Your task to perform on an android device: Search for pizza restaurants on Maps Image 0: 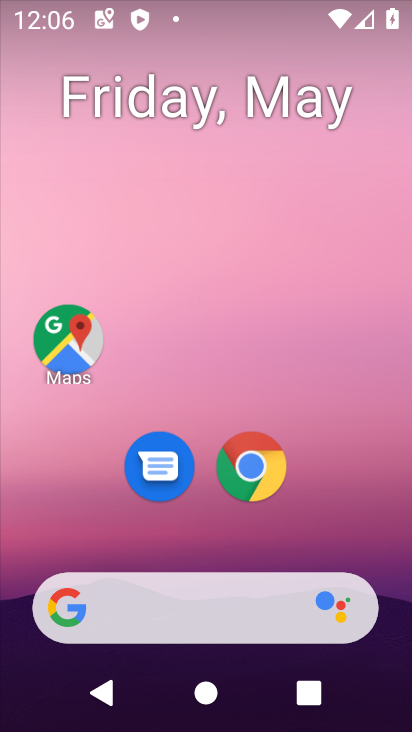
Step 0: drag from (388, 624) to (176, 32)
Your task to perform on an android device: Search for pizza restaurants on Maps Image 1: 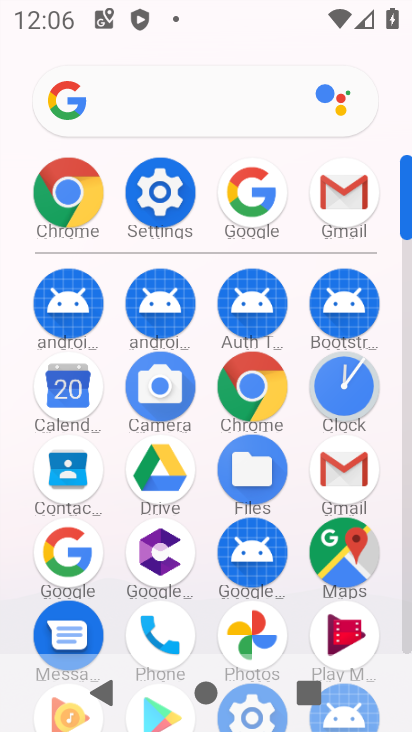
Step 1: click (348, 543)
Your task to perform on an android device: Search for pizza restaurants on Maps Image 2: 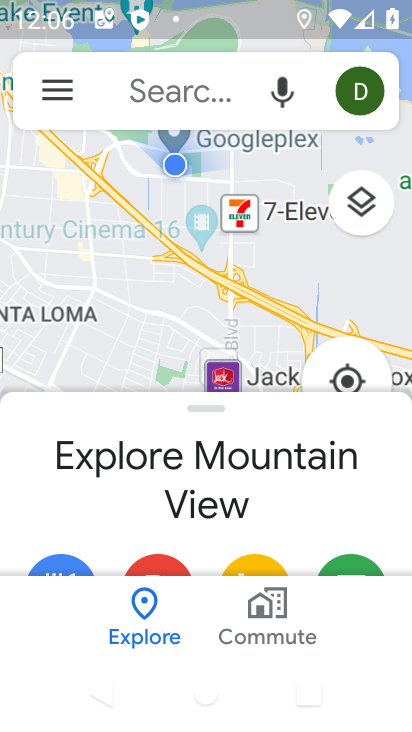
Step 2: click (168, 95)
Your task to perform on an android device: Search for pizza restaurants on Maps Image 3: 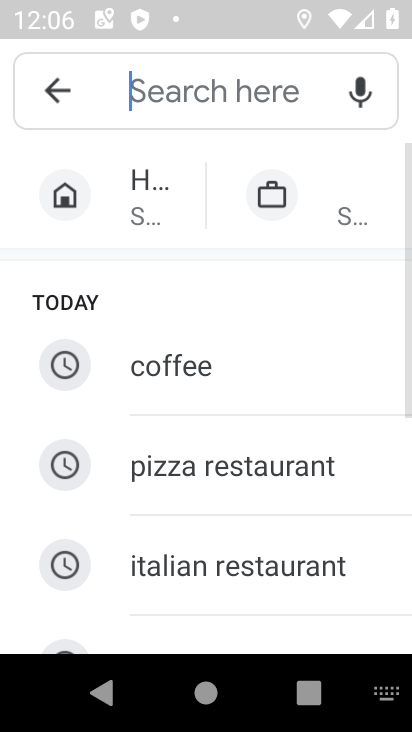
Step 3: click (180, 458)
Your task to perform on an android device: Search for pizza restaurants on Maps Image 4: 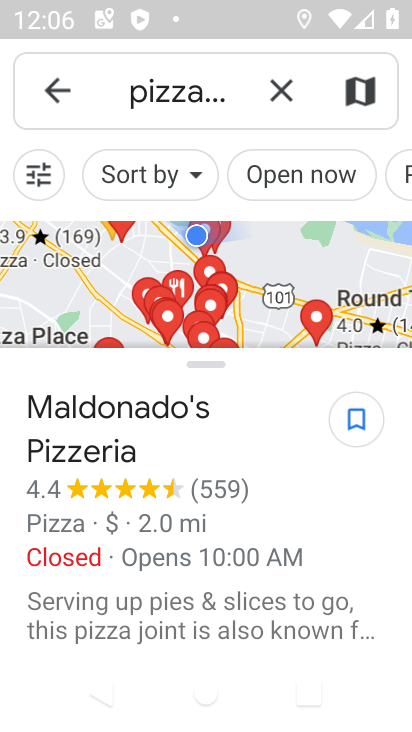
Step 4: task complete